Your task to perform on an android device: What's on my calendar today? Image 0: 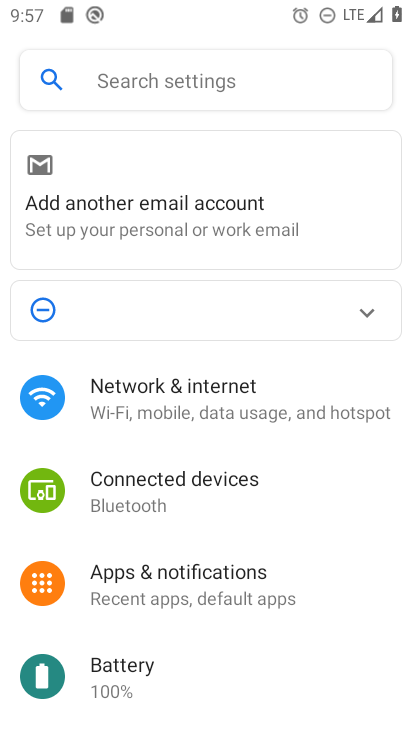
Step 0: press home button
Your task to perform on an android device: What's on my calendar today? Image 1: 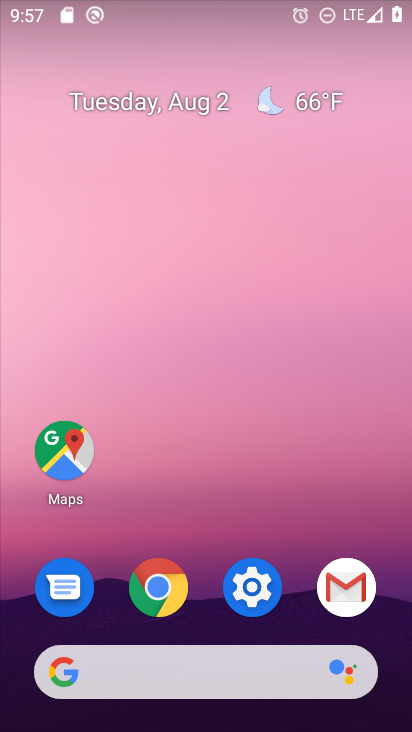
Step 1: drag from (239, 606) to (245, 149)
Your task to perform on an android device: What's on my calendar today? Image 2: 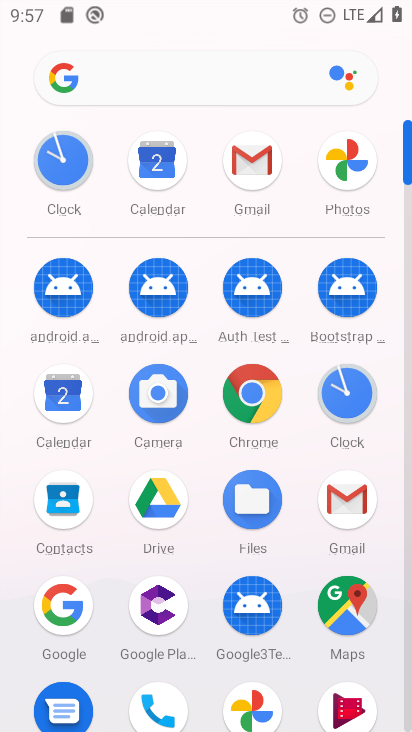
Step 2: click (71, 401)
Your task to perform on an android device: What's on my calendar today? Image 3: 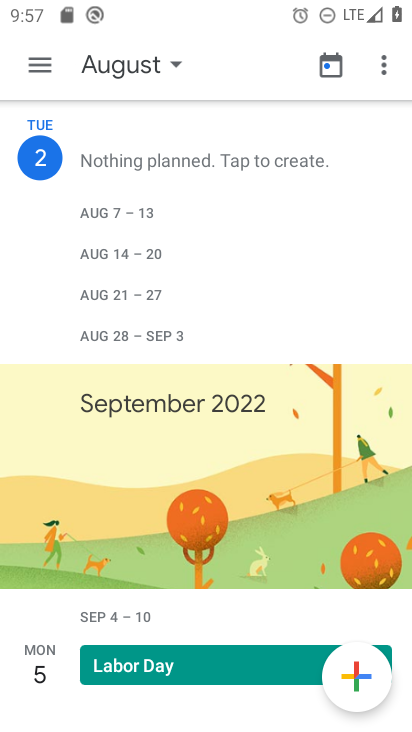
Step 3: click (42, 74)
Your task to perform on an android device: What's on my calendar today? Image 4: 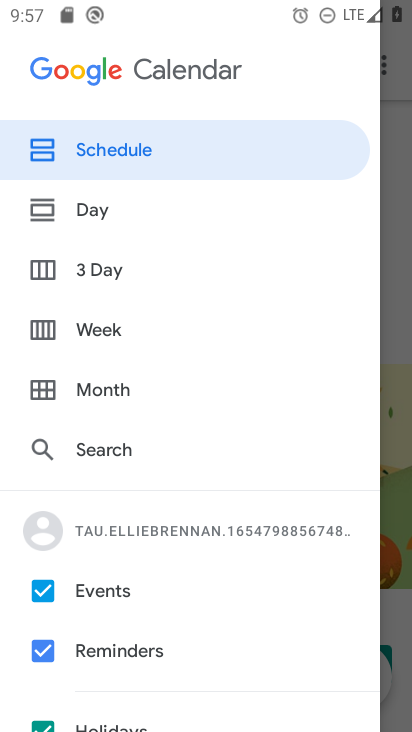
Step 4: click (135, 395)
Your task to perform on an android device: What's on my calendar today? Image 5: 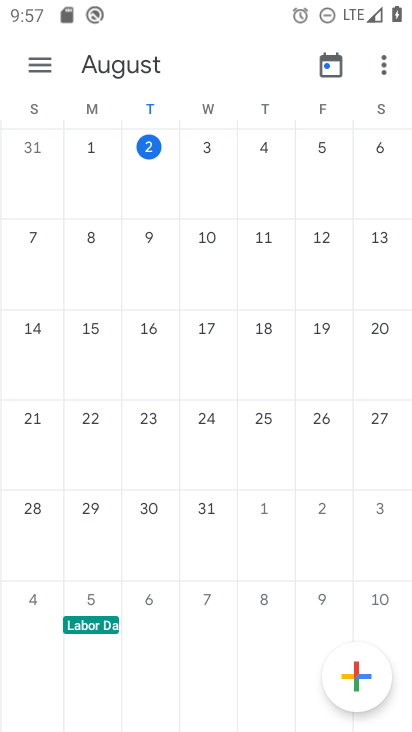
Step 5: click (147, 169)
Your task to perform on an android device: What's on my calendar today? Image 6: 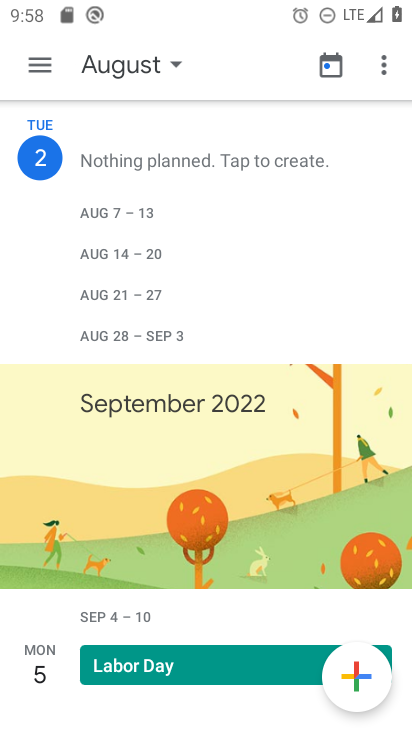
Step 6: task complete